Your task to perform on an android device: Open Google Chrome Image 0: 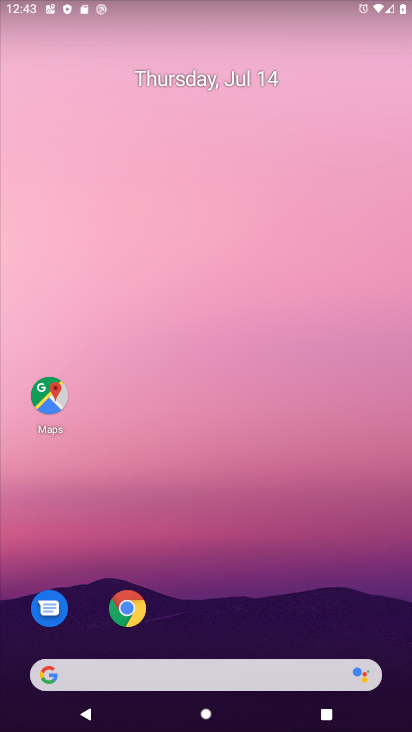
Step 0: click (128, 609)
Your task to perform on an android device: Open Google Chrome Image 1: 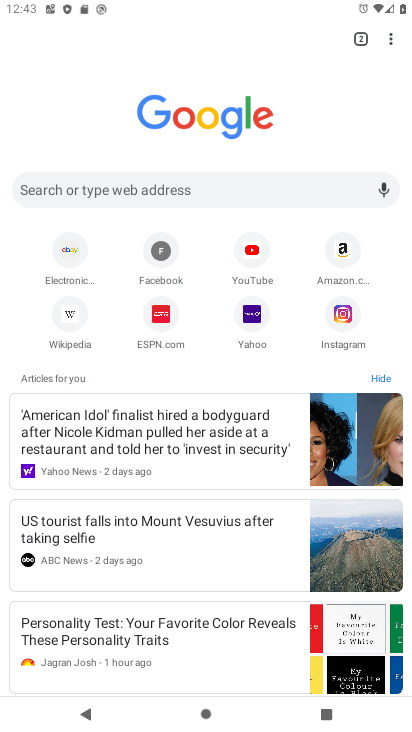
Step 1: task complete